Your task to perform on an android device: install app "PlayWell" Image 0: 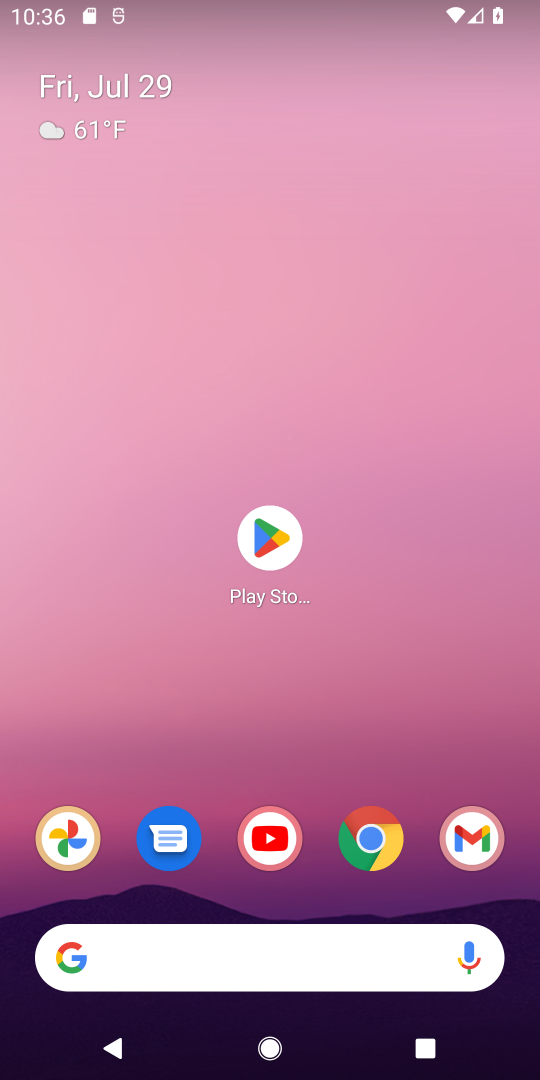
Step 0: press home button
Your task to perform on an android device: install app "PlayWell" Image 1: 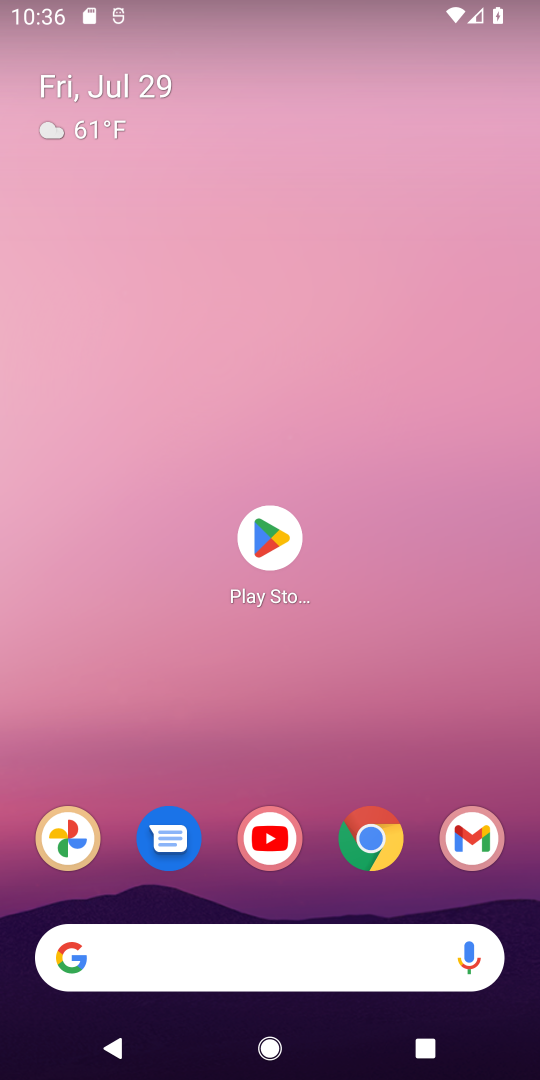
Step 1: click (269, 548)
Your task to perform on an android device: install app "PlayWell" Image 2: 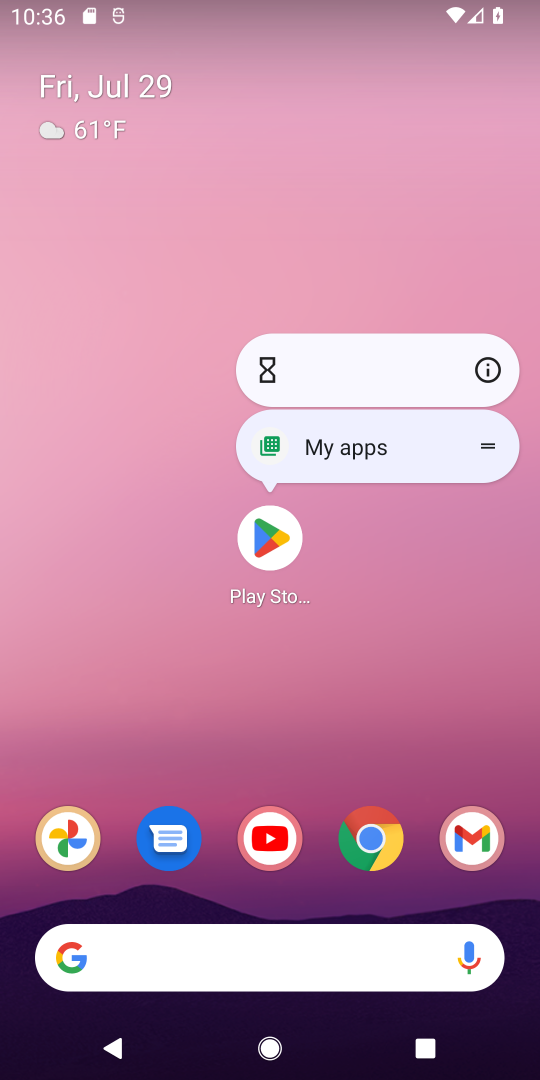
Step 2: click (256, 549)
Your task to perform on an android device: install app "PlayWell" Image 3: 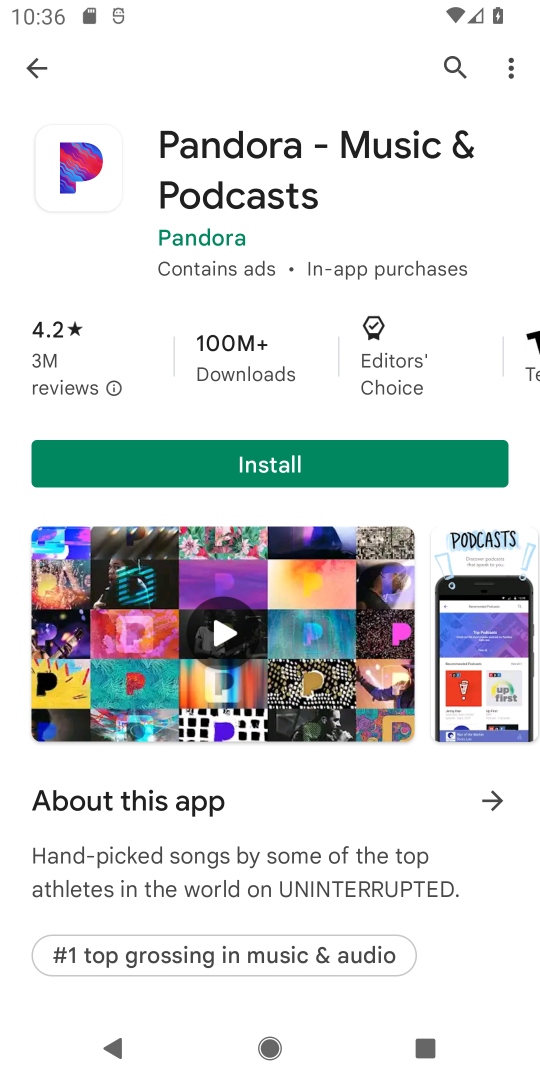
Step 3: click (452, 59)
Your task to perform on an android device: install app "PlayWell" Image 4: 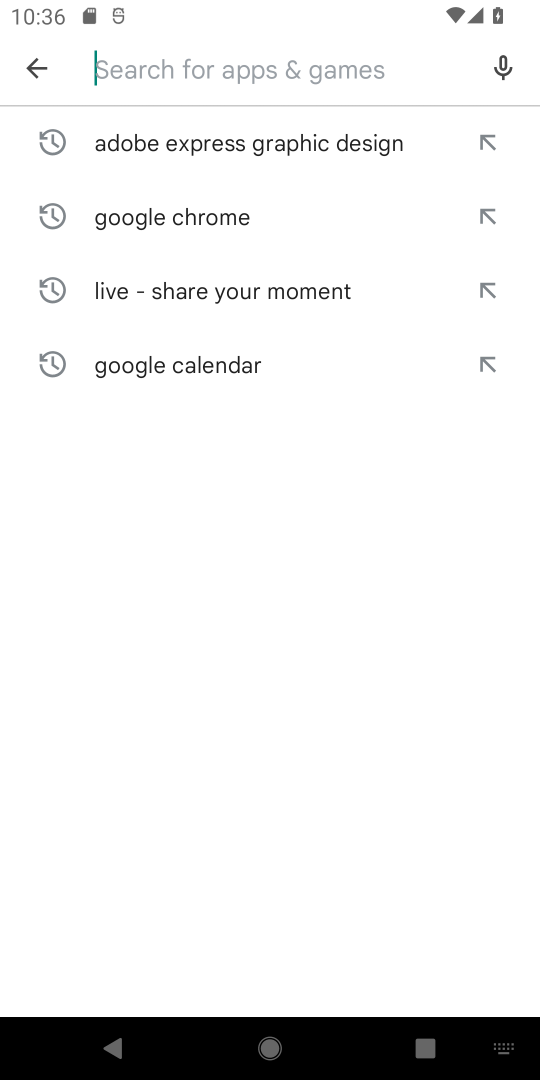
Step 4: type "PlayWell"
Your task to perform on an android device: install app "PlayWell" Image 5: 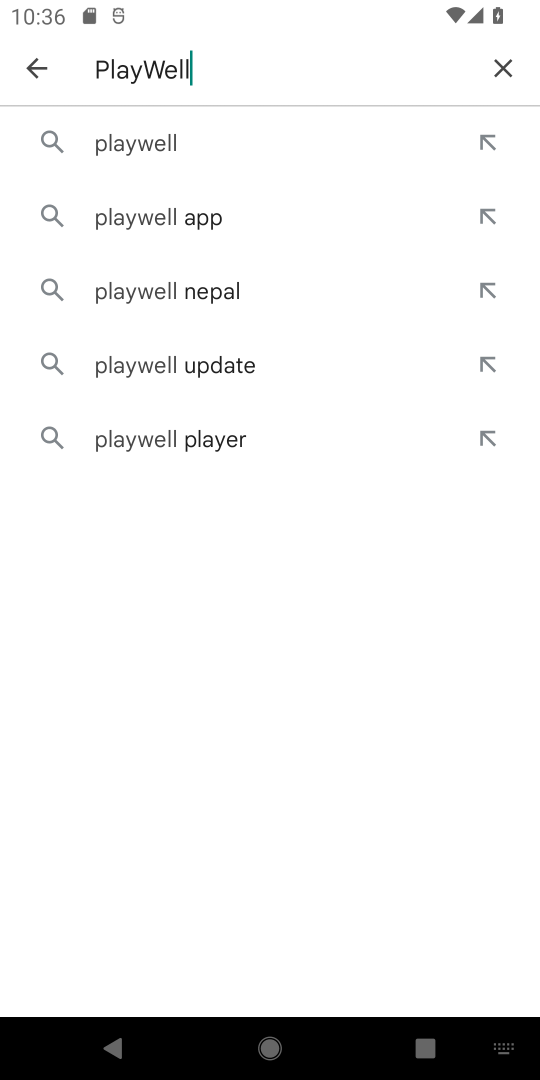
Step 5: click (148, 142)
Your task to perform on an android device: install app "PlayWell" Image 6: 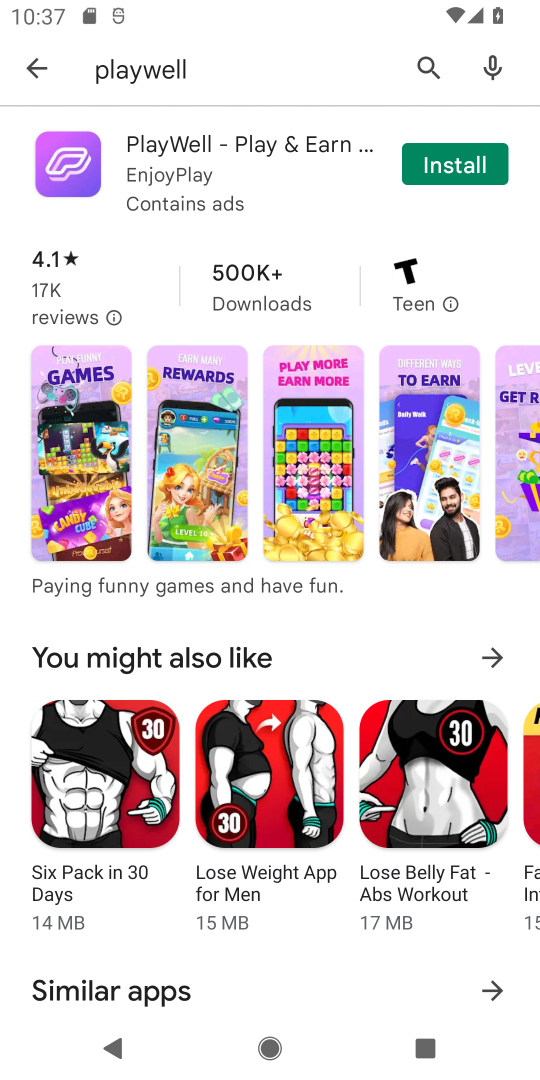
Step 6: click (451, 162)
Your task to perform on an android device: install app "PlayWell" Image 7: 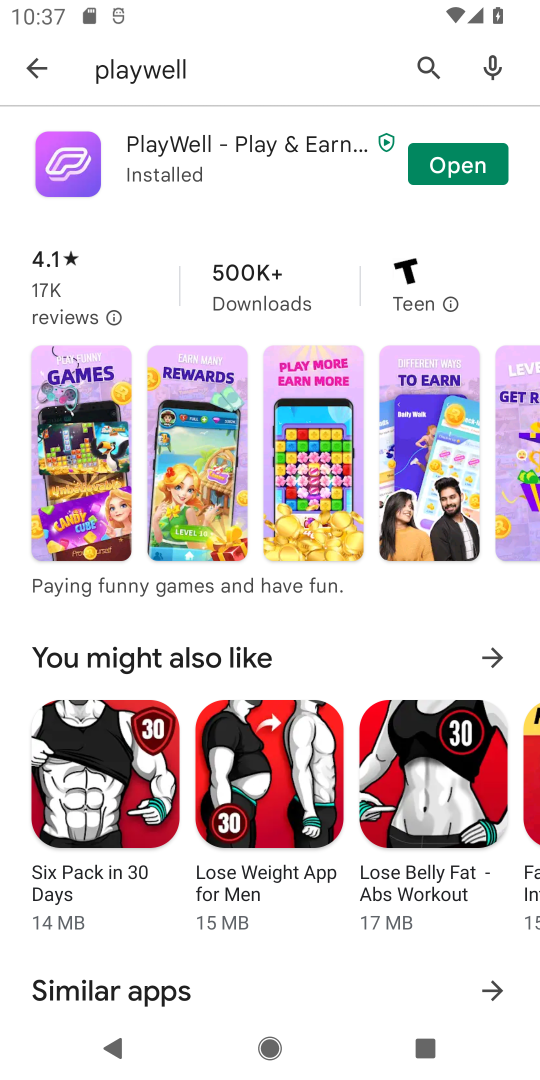
Step 7: task complete